Your task to perform on an android device: change notification settings in the gmail app Image 0: 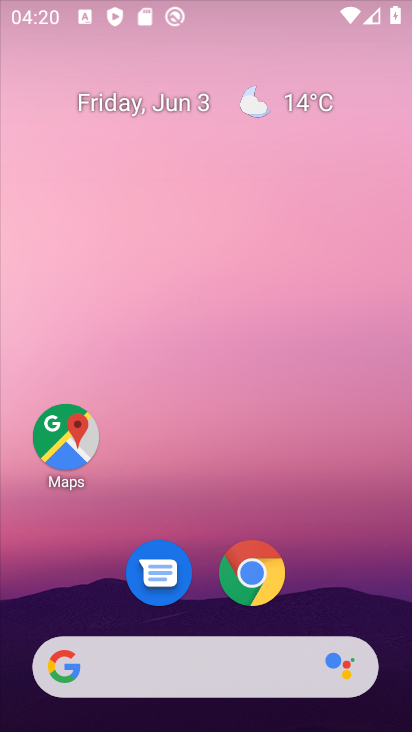
Step 0: drag from (349, 648) to (299, 15)
Your task to perform on an android device: change notification settings in the gmail app Image 1: 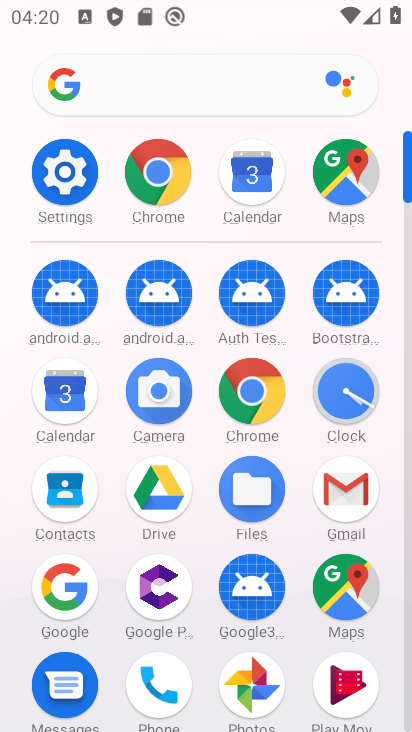
Step 1: click (255, 416)
Your task to perform on an android device: change notification settings in the gmail app Image 2: 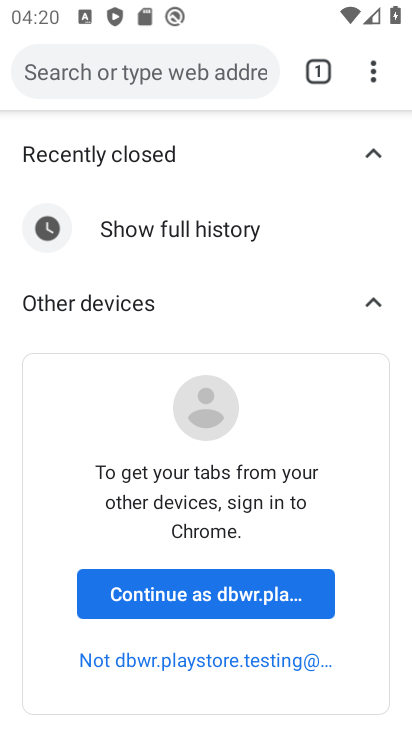
Step 2: press home button
Your task to perform on an android device: change notification settings in the gmail app Image 3: 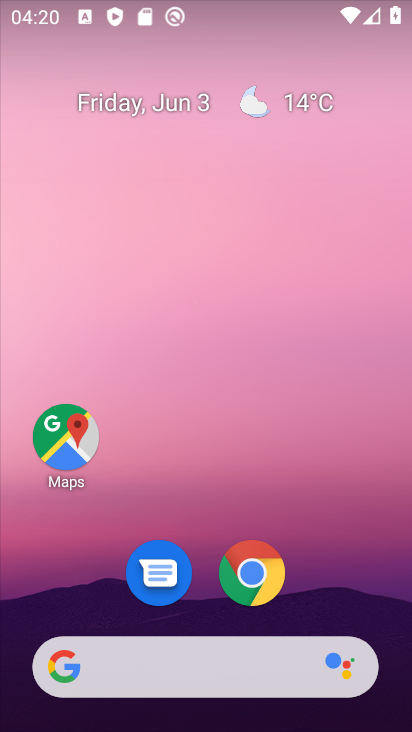
Step 3: drag from (267, 607) to (265, 26)
Your task to perform on an android device: change notification settings in the gmail app Image 4: 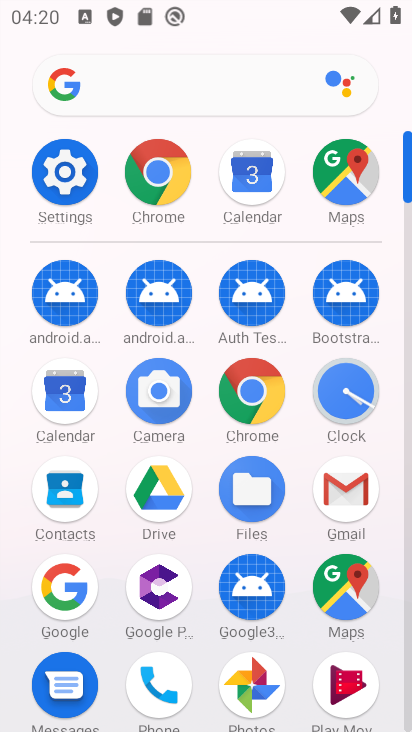
Step 4: click (331, 489)
Your task to perform on an android device: change notification settings in the gmail app Image 5: 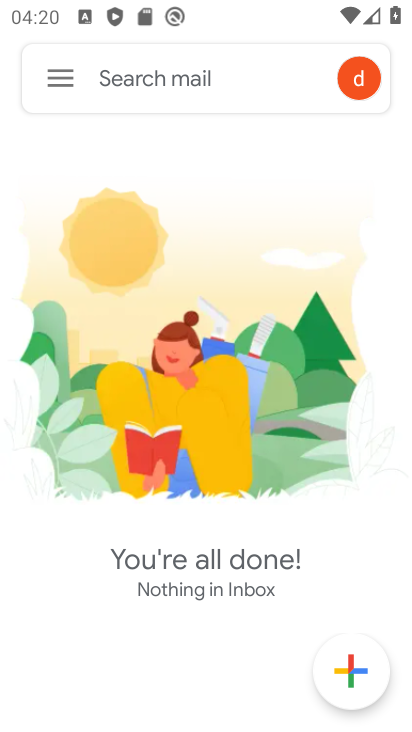
Step 5: click (57, 90)
Your task to perform on an android device: change notification settings in the gmail app Image 6: 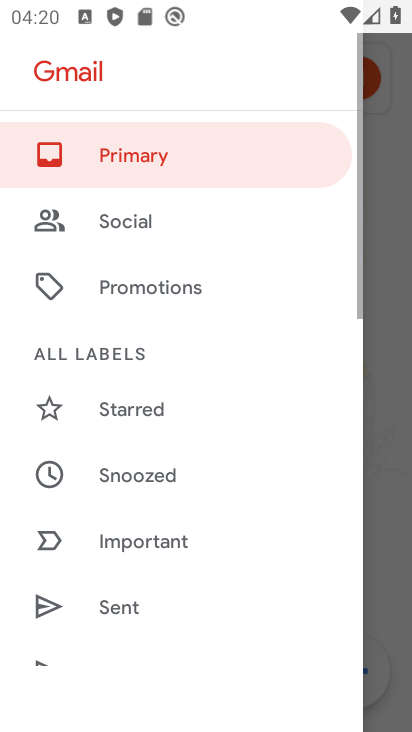
Step 6: drag from (161, 510) to (167, 163)
Your task to perform on an android device: change notification settings in the gmail app Image 7: 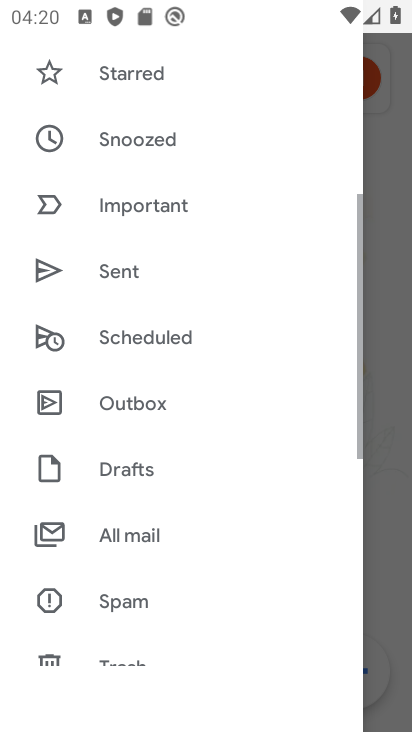
Step 7: drag from (241, 563) to (232, 137)
Your task to perform on an android device: change notification settings in the gmail app Image 8: 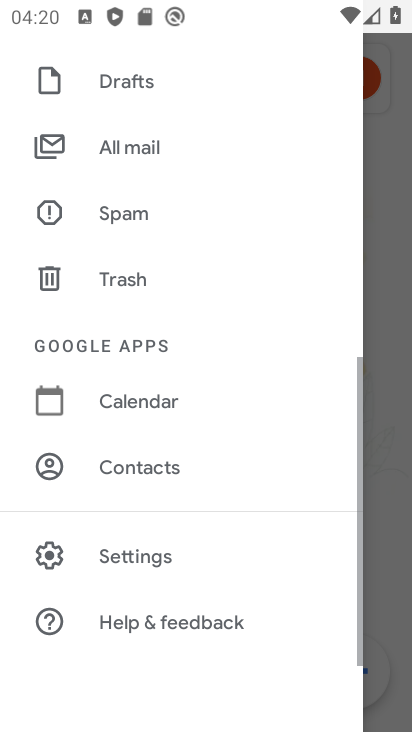
Step 8: click (174, 558)
Your task to perform on an android device: change notification settings in the gmail app Image 9: 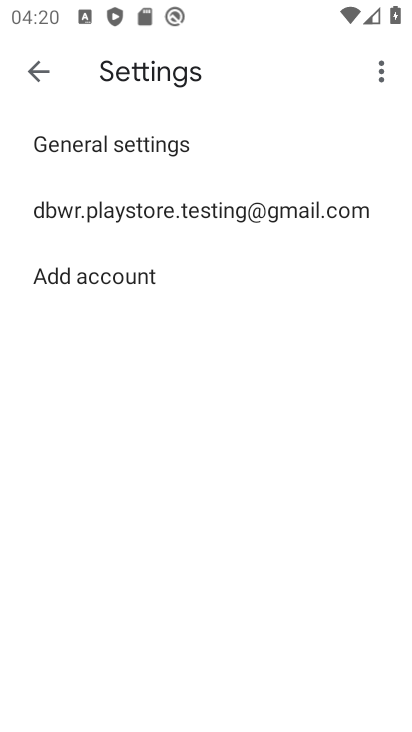
Step 9: click (266, 197)
Your task to perform on an android device: change notification settings in the gmail app Image 10: 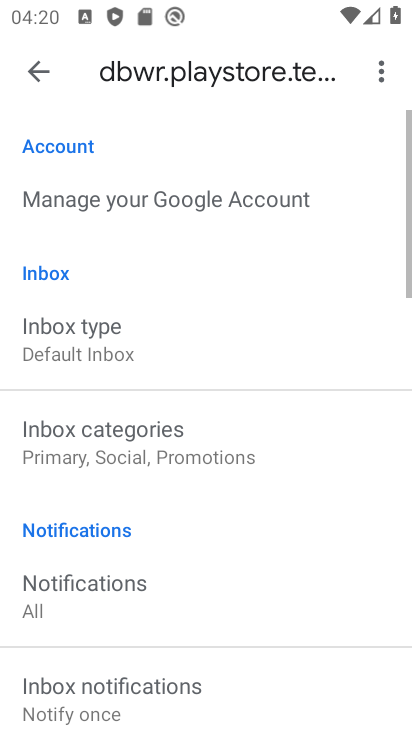
Step 10: drag from (235, 552) to (225, 122)
Your task to perform on an android device: change notification settings in the gmail app Image 11: 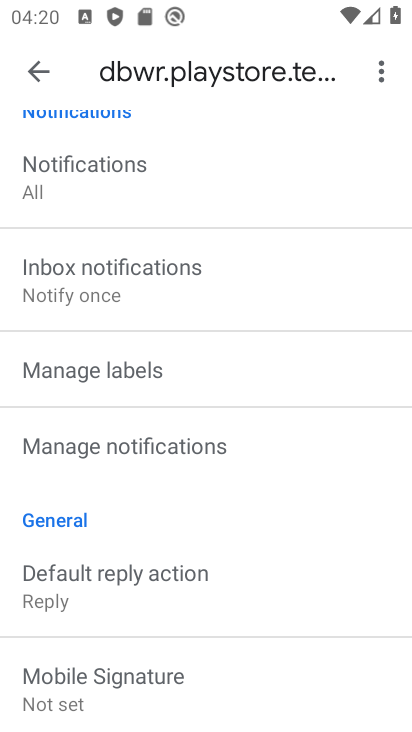
Step 11: click (216, 462)
Your task to perform on an android device: change notification settings in the gmail app Image 12: 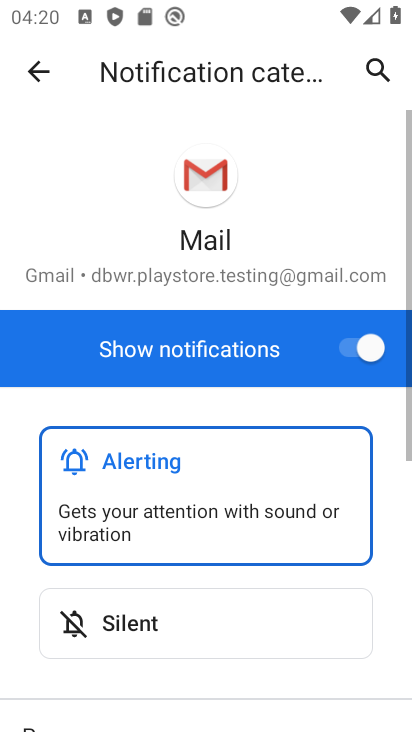
Step 12: click (352, 351)
Your task to perform on an android device: change notification settings in the gmail app Image 13: 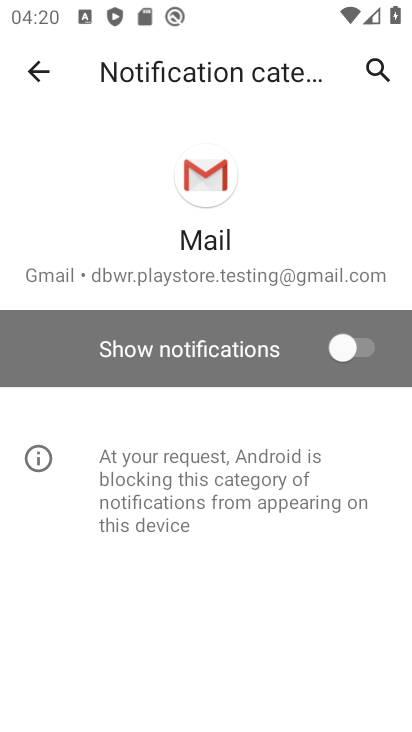
Step 13: press home button
Your task to perform on an android device: change notification settings in the gmail app Image 14: 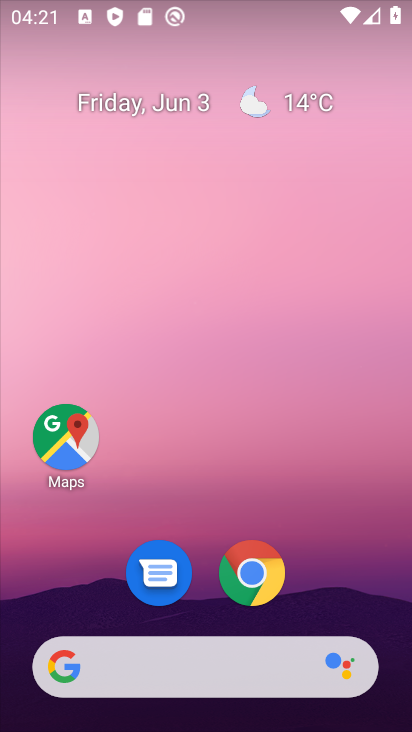
Step 14: drag from (293, 592) to (291, 128)
Your task to perform on an android device: change notification settings in the gmail app Image 15: 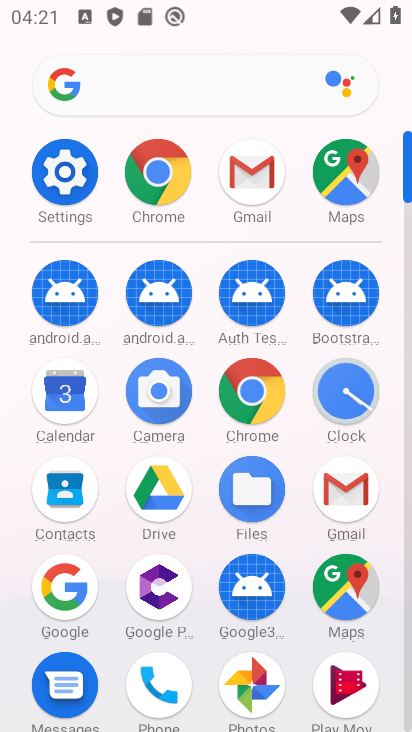
Step 15: click (339, 477)
Your task to perform on an android device: change notification settings in the gmail app Image 16: 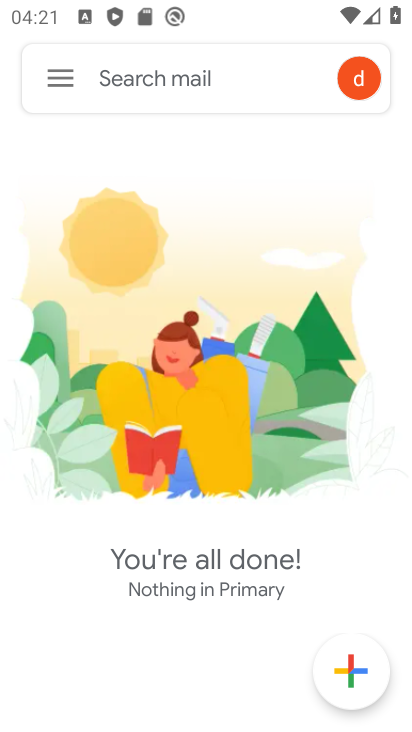
Step 16: click (72, 82)
Your task to perform on an android device: change notification settings in the gmail app Image 17: 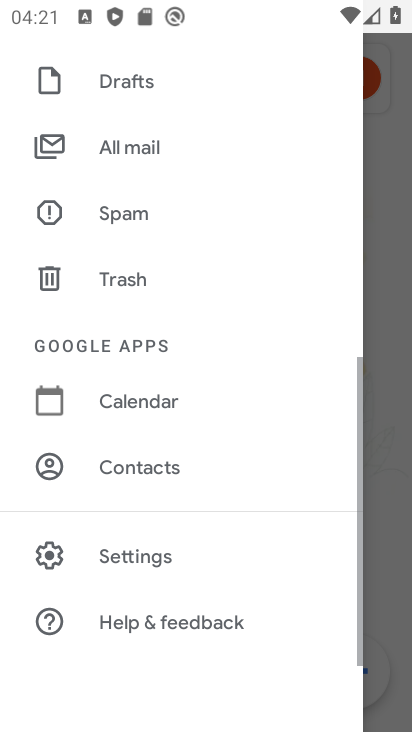
Step 17: click (187, 560)
Your task to perform on an android device: change notification settings in the gmail app Image 18: 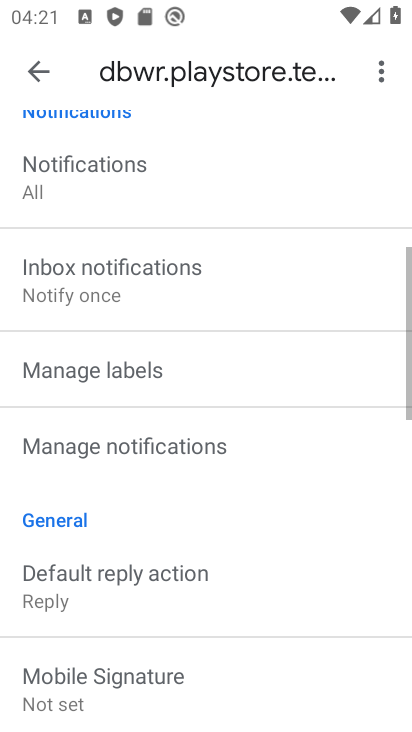
Step 18: drag from (182, 561) to (186, 129)
Your task to perform on an android device: change notification settings in the gmail app Image 19: 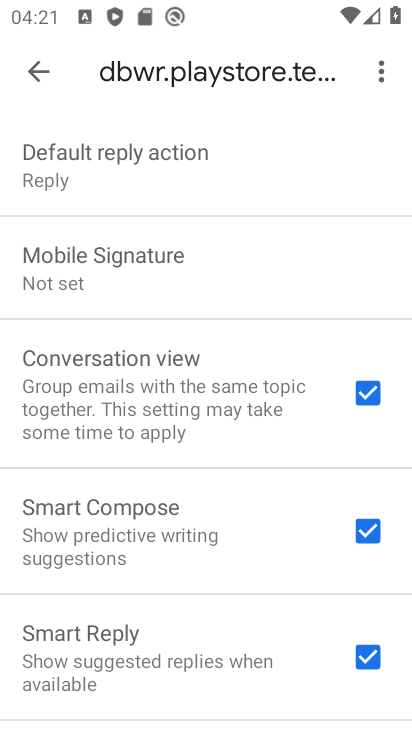
Step 19: drag from (160, 221) to (170, 496)
Your task to perform on an android device: change notification settings in the gmail app Image 20: 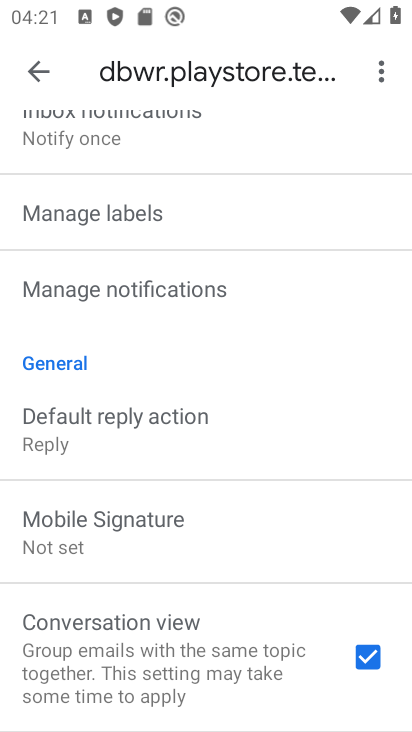
Step 20: click (196, 295)
Your task to perform on an android device: change notification settings in the gmail app Image 21: 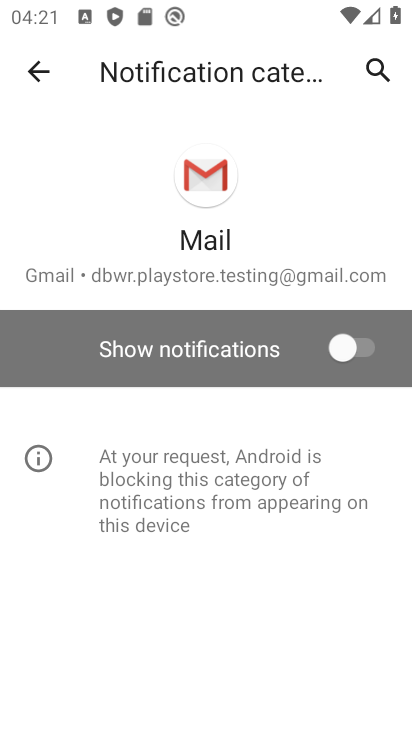
Step 21: task complete